Your task to perform on an android device: Do I have any events today? Image 0: 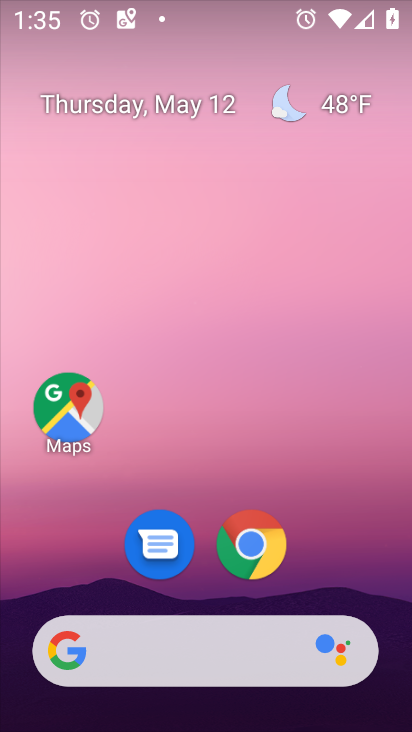
Step 0: drag from (230, 51) to (227, 0)
Your task to perform on an android device: Do I have any events today? Image 1: 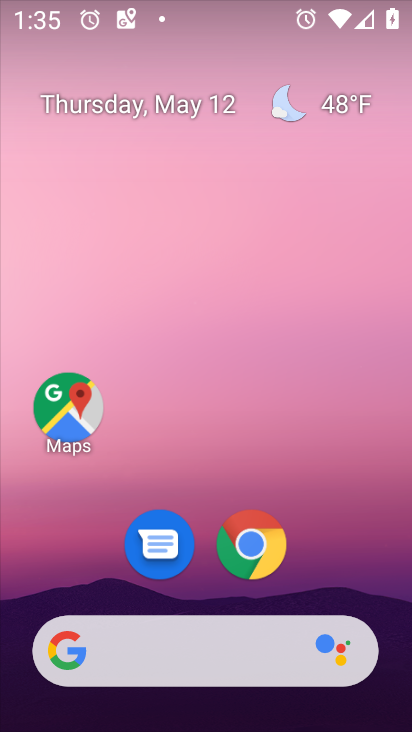
Step 1: click (224, 50)
Your task to perform on an android device: Do I have any events today? Image 2: 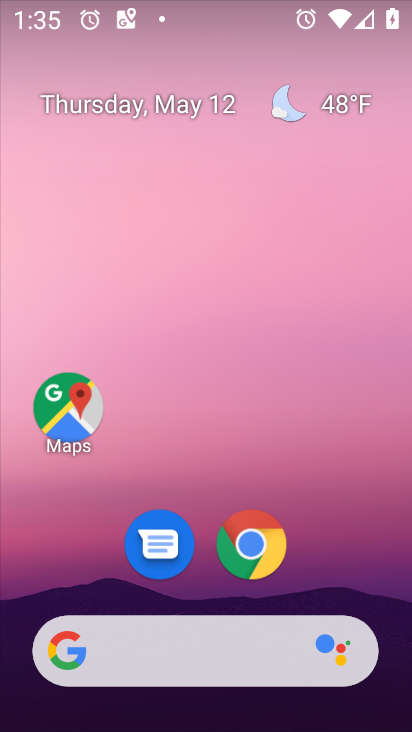
Step 2: drag from (334, 542) to (204, 2)
Your task to perform on an android device: Do I have any events today? Image 3: 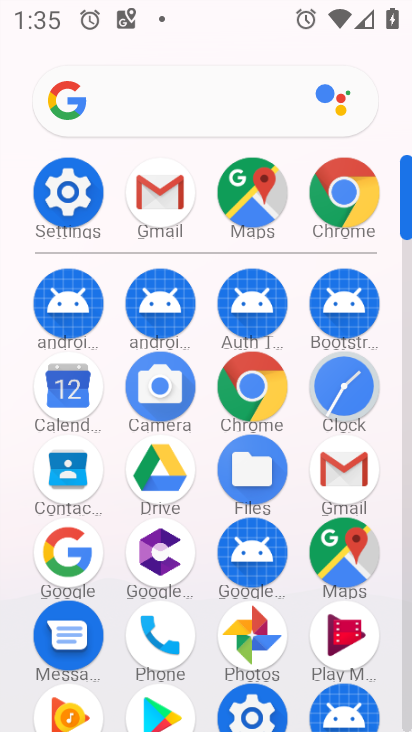
Step 3: drag from (7, 538) to (7, 224)
Your task to perform on an android device: Do I have any events today? Image 4: 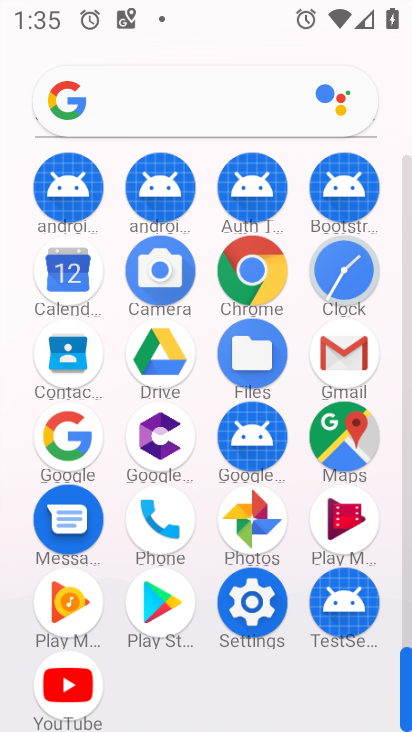
Step 4: click (68, 260)
Your task to perform on an android device: Do I have any events today? Image 5: 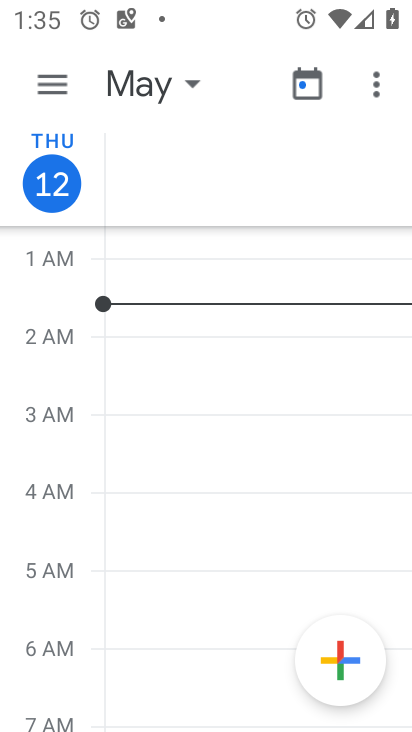
Step 5: click (309, 88)
Your task to perform on an android device: Do I have any events today? Image 6: 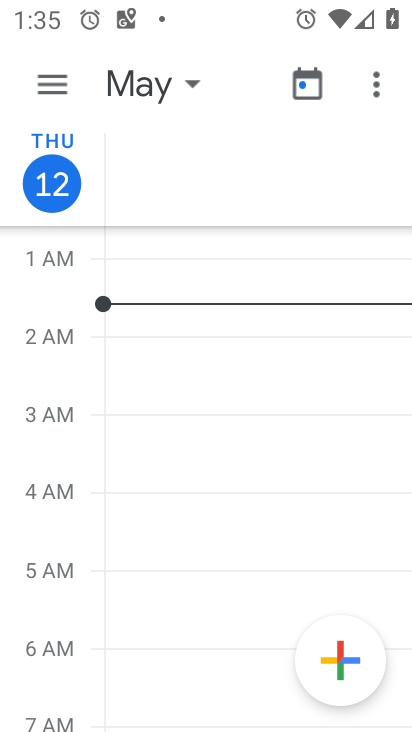
Step 6: task complete